Your task to perform on an android device: Search for pizza restaurants on Maps Image 0: 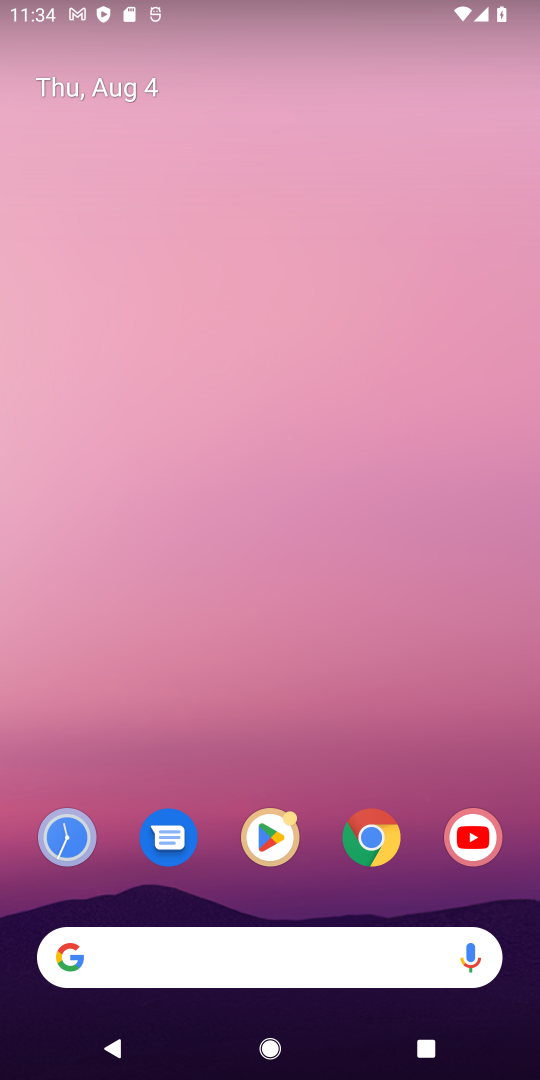
Step 0: drag from (233, 733) to (379, 7)
Your task to perform on an android device: Search for pizza restaurants on Maps Image 1: 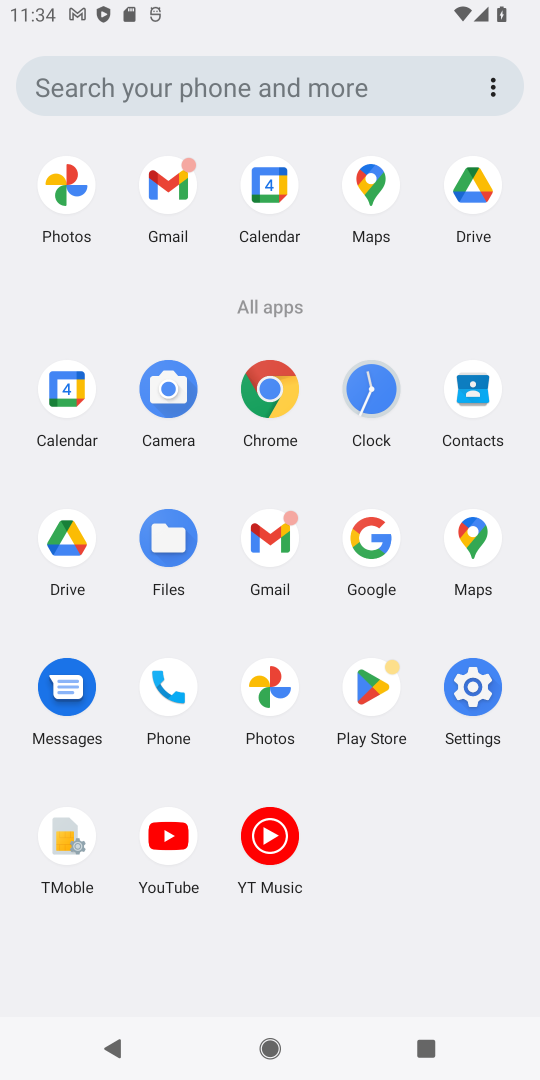
Step 1: click (385, 169)
Your task to perform on an android device: Search for pizza restaurants on Maps Image 2: 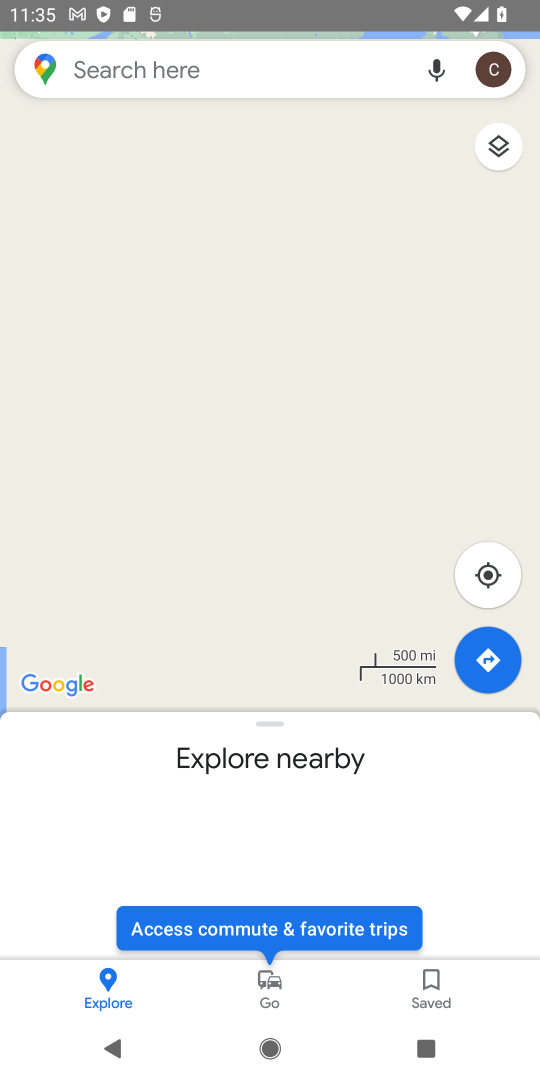
Step 2: click (147, 60)
Your task to perform on an android device: Search for pizza restaurants on Maps Image 3: 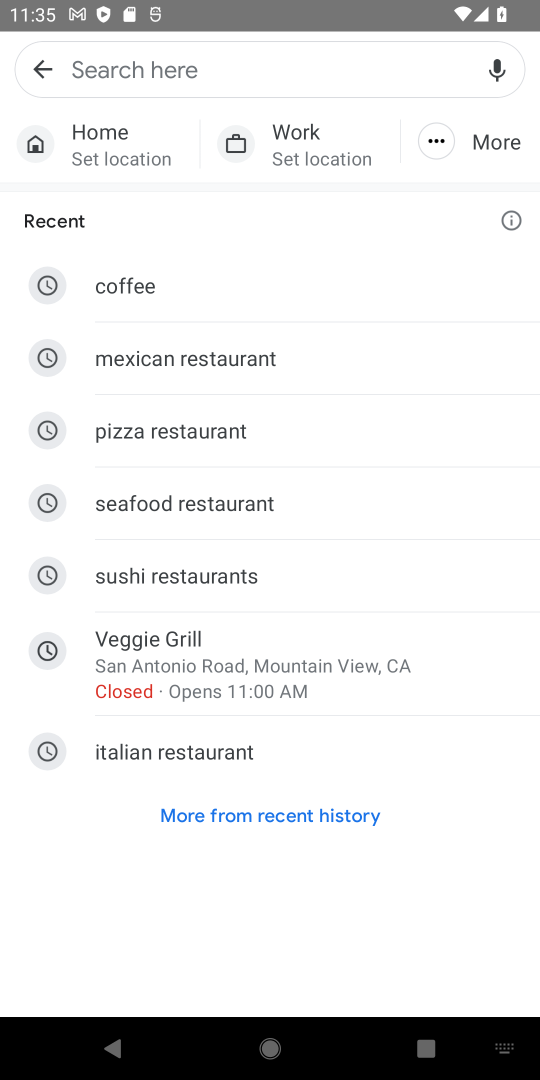
Step 3: type "pizza restaurants"
Your task to perform on an android device: Search for pizza restaurants on Maps Image 4: 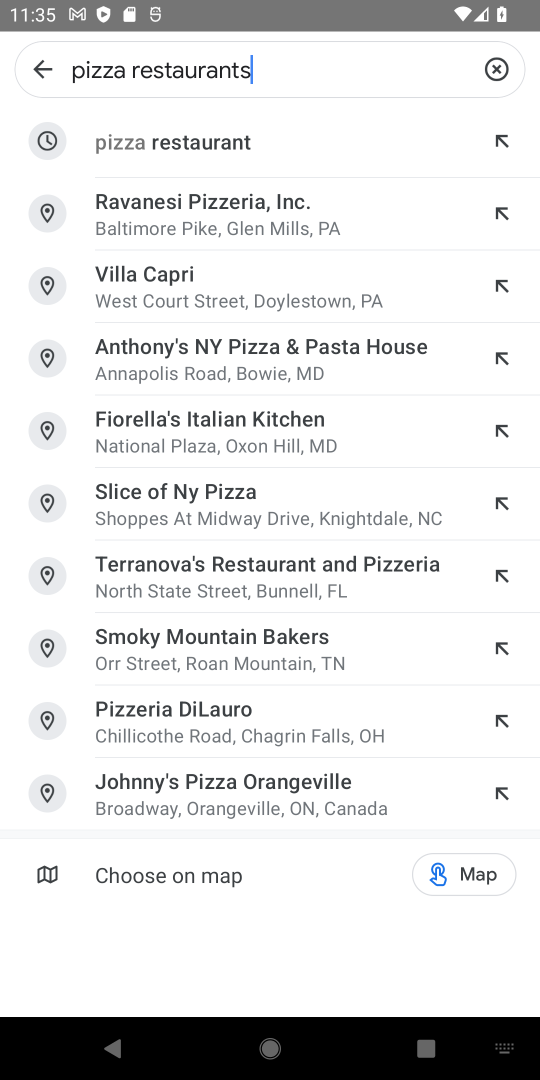
Step 4: click (172, 149)
Your task to perform on an android device: Search for pizza restaurants on Maps Image 5: 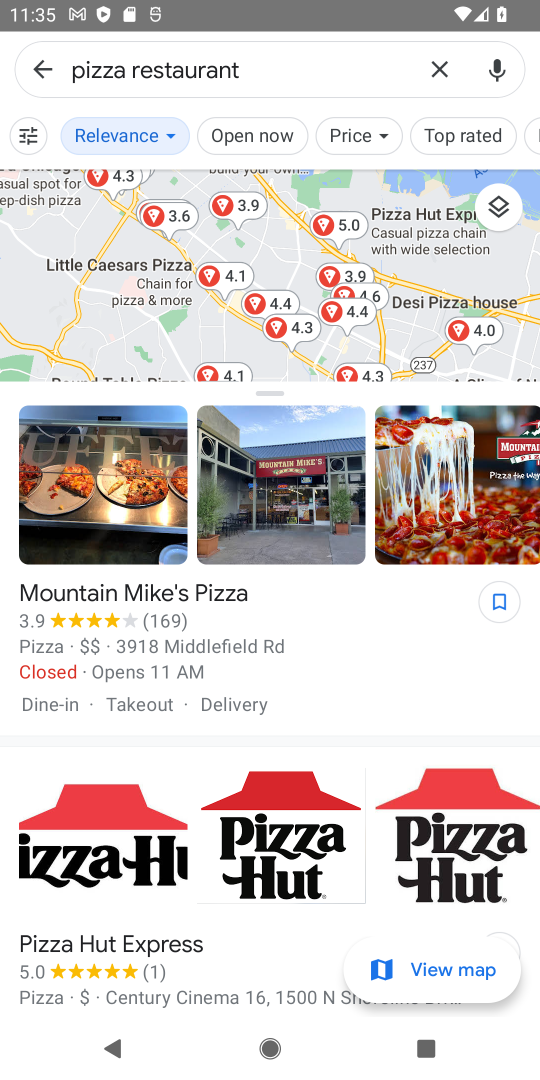
Step 5: task complete